Your task to perform on an android device: open a bookmark in the chrome app Image 0: 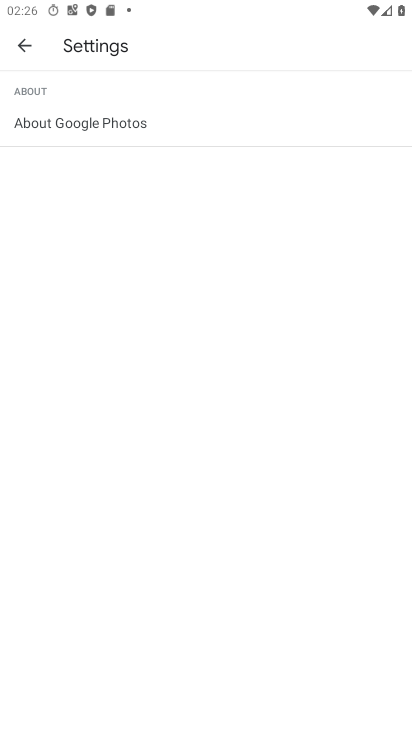
Step 0: press home button
Your task to perform on an android device: open a bookmark in the chrome app Image 1: 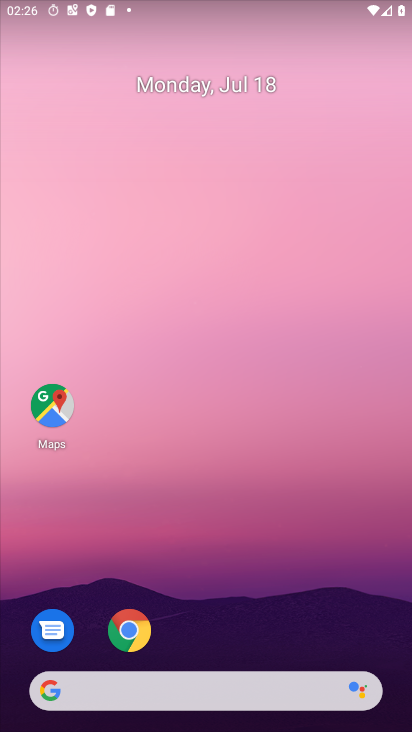
Step 1: click (127, 640)
Your task to perform on an android device: open a bookmark in the chrome app Image 2: 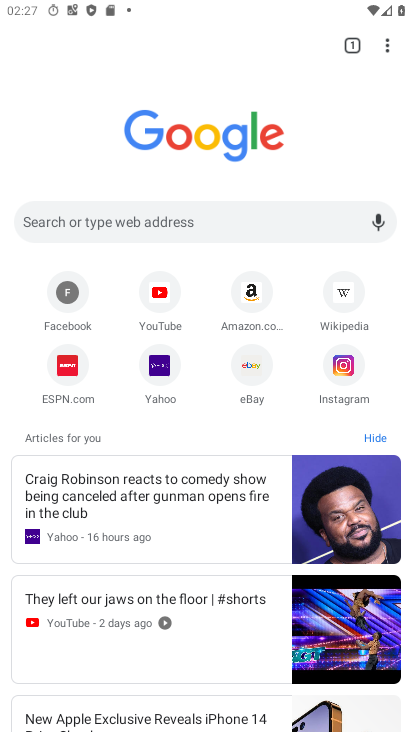
Step 2: click (395, 43)
Your task to perform on an android device: open a bookmark in the chrome app Image 3: 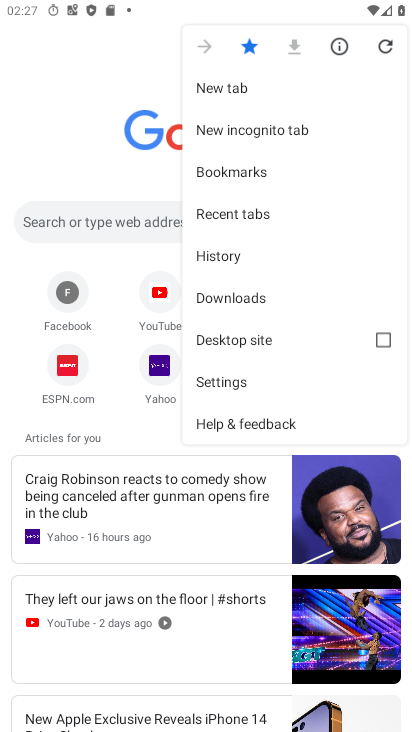
Step 3: click (266, 172)
Your task to perform on an android device: open a bookmark in the chrome app Image 4: 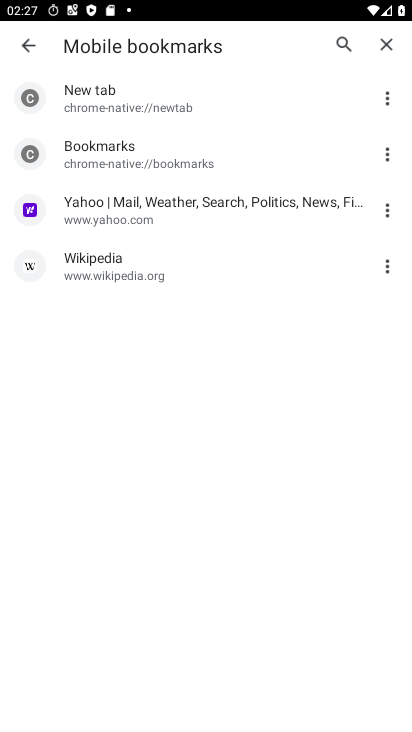
Step 4: click (99, 165)
Your task to perform on an android device: open a bookmark in the chrome app Image 5: 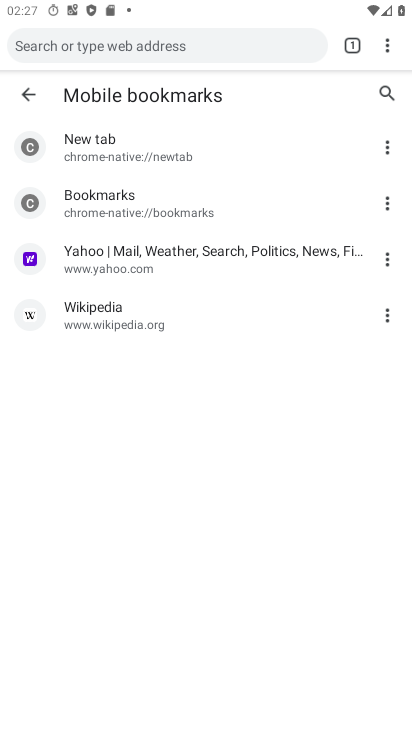
Step 5: click (117, 215)
Your task to perform on an android device: open a bookmark in the chrome app Image 6: 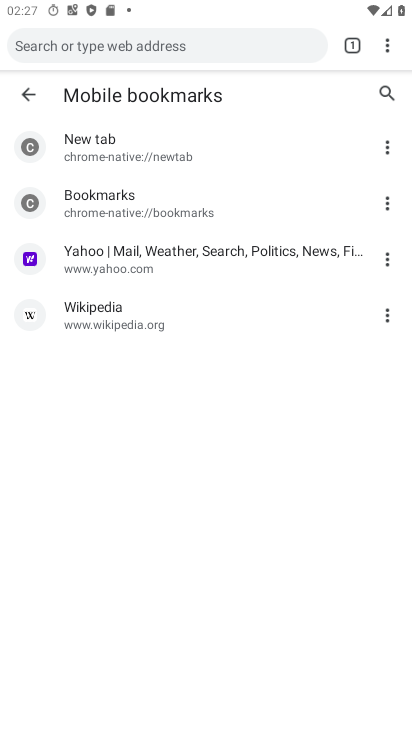
Step 6: click (155, 210)
Your task to perform on an android device: open a bookmark in the chrome app Image 7: 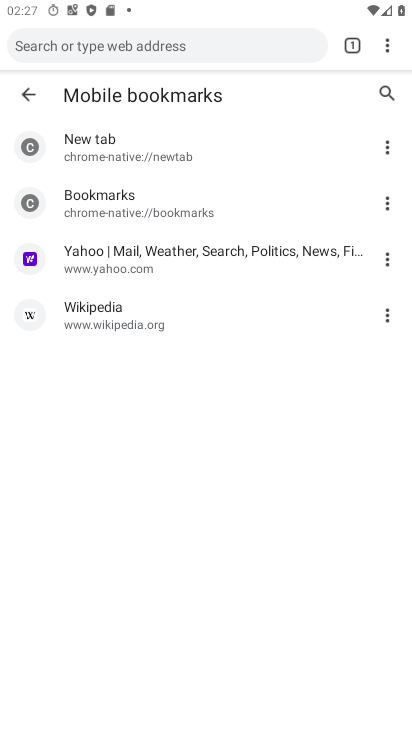
Step 7: click (241, 202)
Your task to perform on an android device: open a bookmark in the chrome app Image 8: 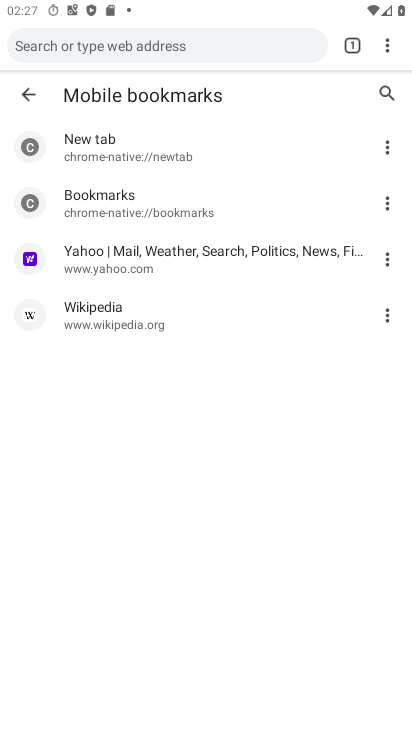
Step 8: click (234, 211)
Your task to perform on an android device: open a bookmark in the chrome app Image 9: 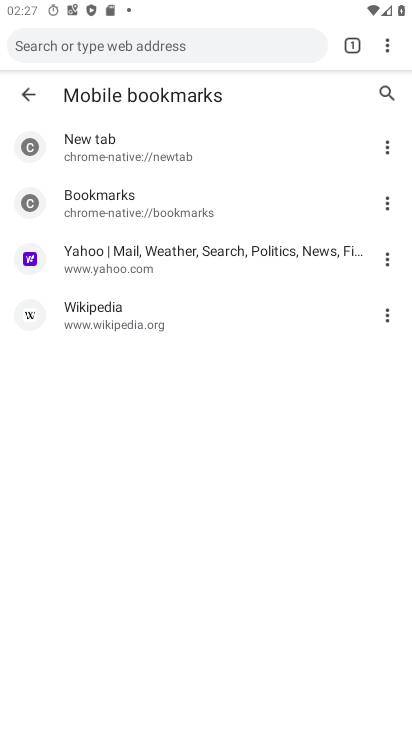
Step 9: click (123, 199)
Your task to perform on an android device: open a bookmark in the chrome app Image 10: 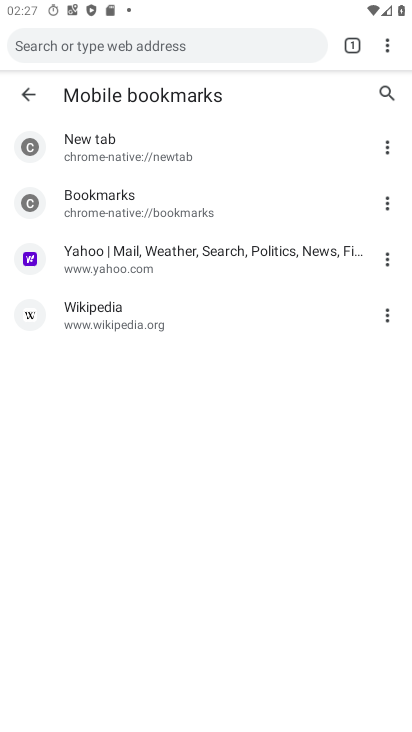
Step 10: click (123, 199)
Your task to perform on an android device: open a bookmark in the chrome app Image 11: 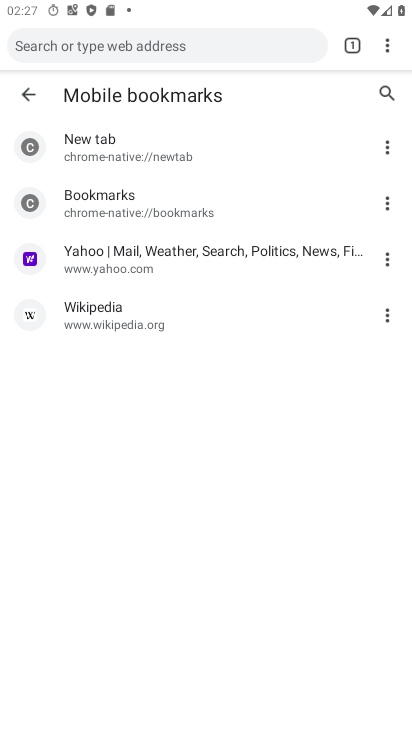
Step 11: click (123, 199)
Your task to perform on an android device: open a bookmark in the chrome app Image 12: 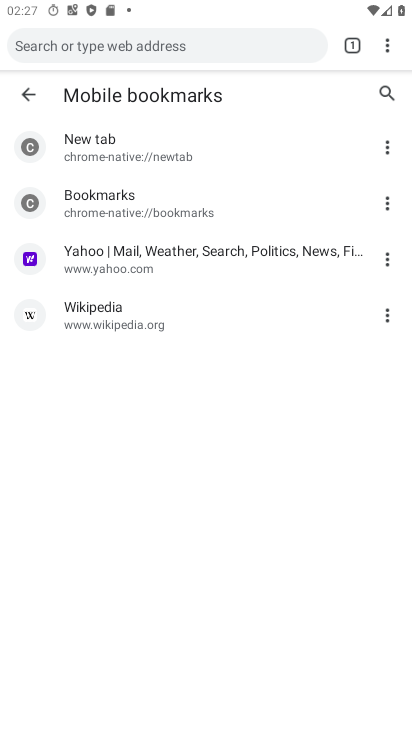
Step 12: click (123, 199)
Your task to perform on an android device: open a bookmark in the chrome app Image 13: 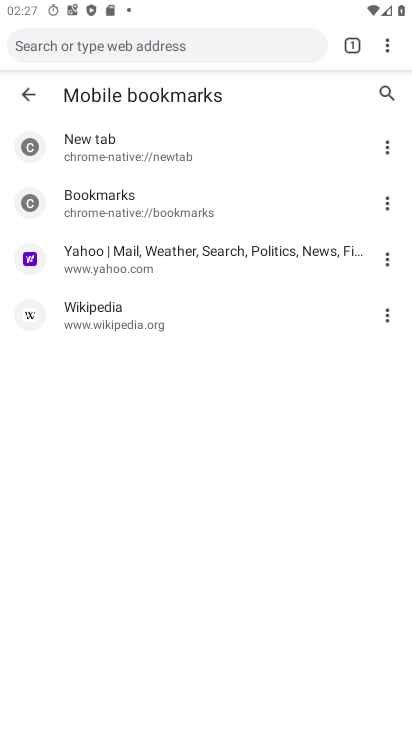
Step 13: click (123, 199)
Your task to perform on an android device: open a bookmark in the chrome app Image 14: 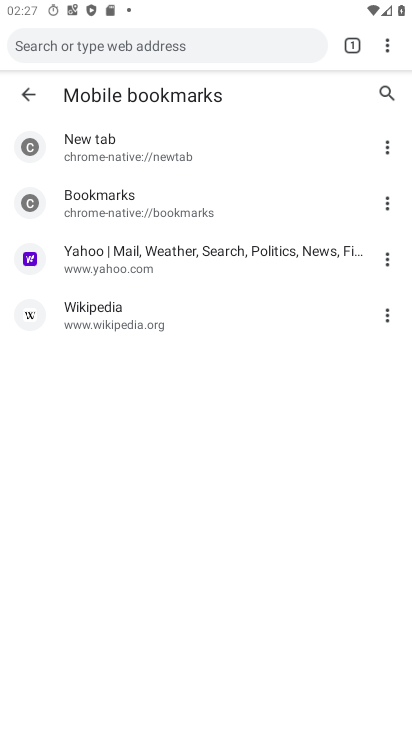
Step 14: click (123, 199)
Your task to perform on an android device: open a bookmark in the chrome app Image 15: 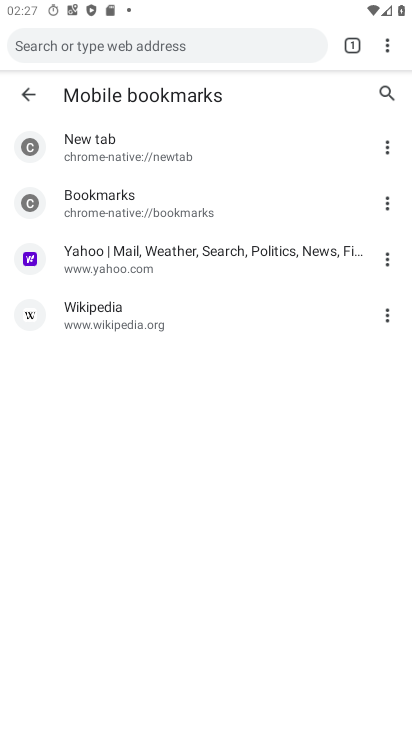
Step 15: click (123, 199)
Your task to perform on an android device: open a bookmark in the chrome app Image 16: 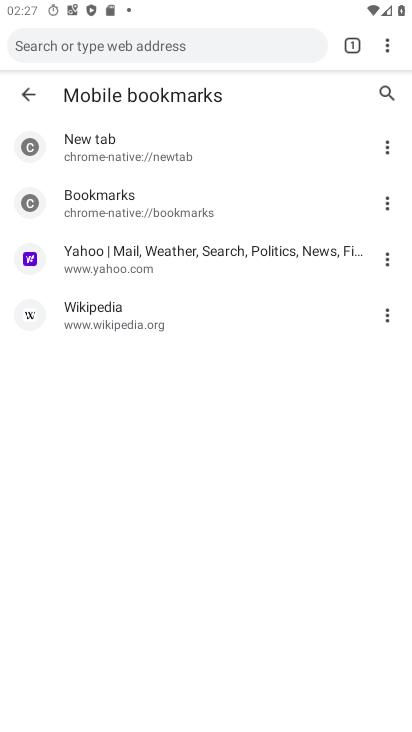
Step 16: click (123, 199)
Your task to perform on an android device: open a bookmark in the chrome app Image 17: 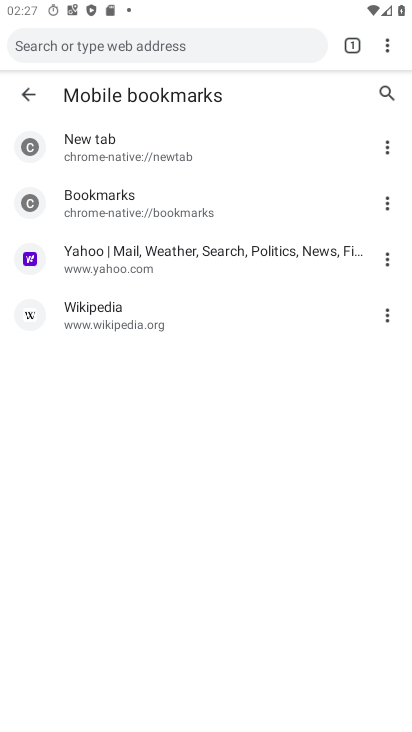
Step 17: click (123, 199)
Your task to perform on an android device: open a bookmark in the chrome app Image 18: 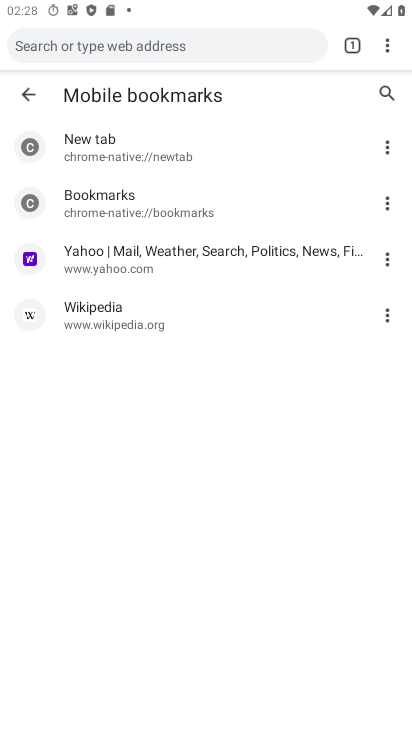
Step 18: click (123, 199)
Your task to perform on an android device: open a bookmark in the chrome app Image 19: 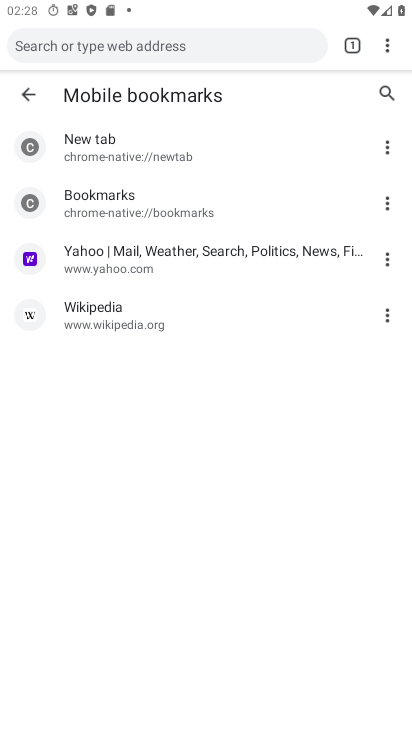
Step 19: click (123, 199)
Your task to perform on an android device: open a bookmark in the chrome app Image 20: 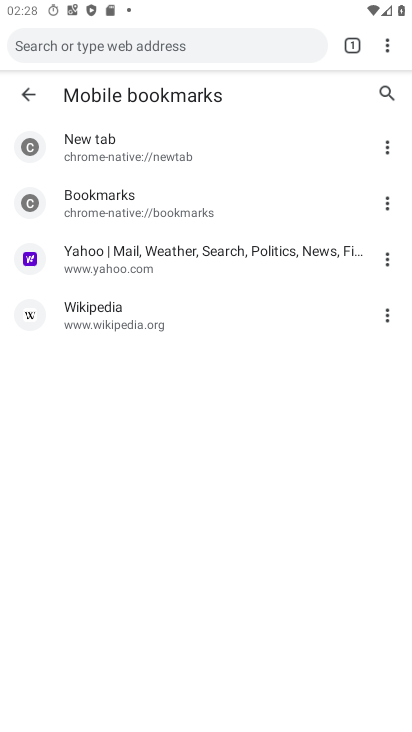
Step 20: click (94, 211)
Your task to perform on an android device: open a bookmark in the chrome app Image 21: 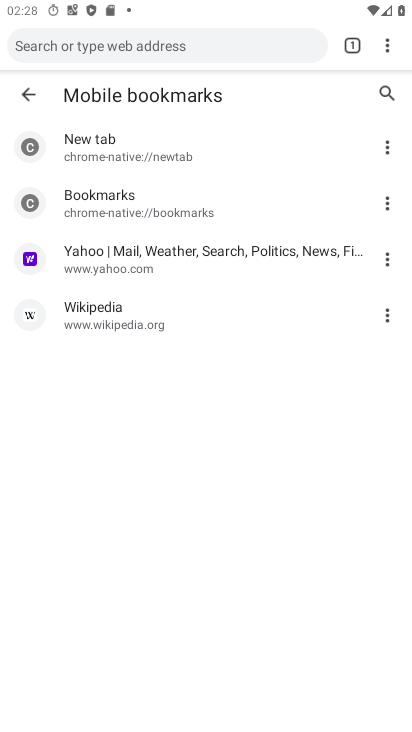
Step 21: click (94, 211)
Your task to perform on an android device: open a bookmark in the chrome app Image 22: 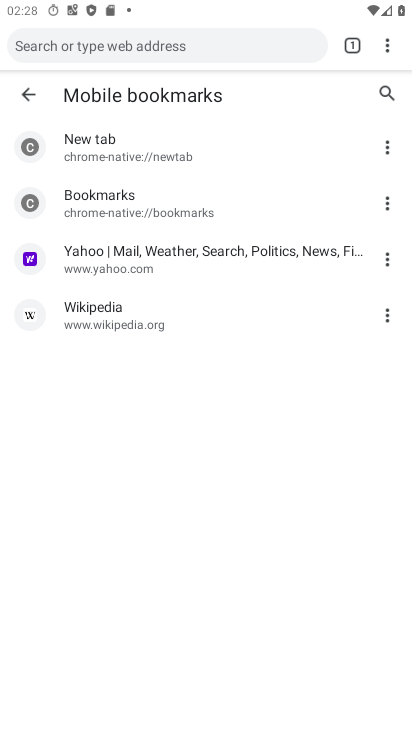
Step 22: click (94, 211)
Your task to perform on an android device: open a bookmark in the chrome app Image 23: 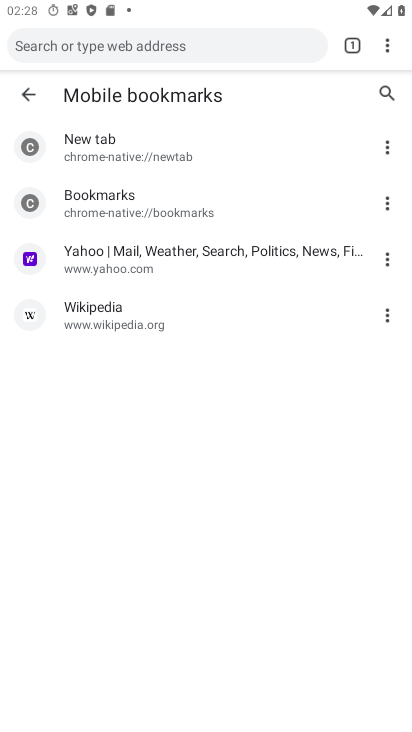
Step 23: click (94, 211)
Your task to perform on an android device: open a bookmark in the chrome app Image 24: 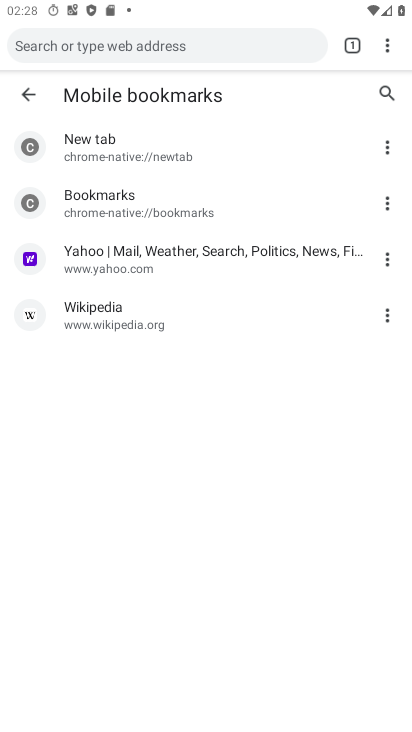
Step 24: task complete